Your task to perform on an android device: What's on my calendar tomorrow? Image 0: 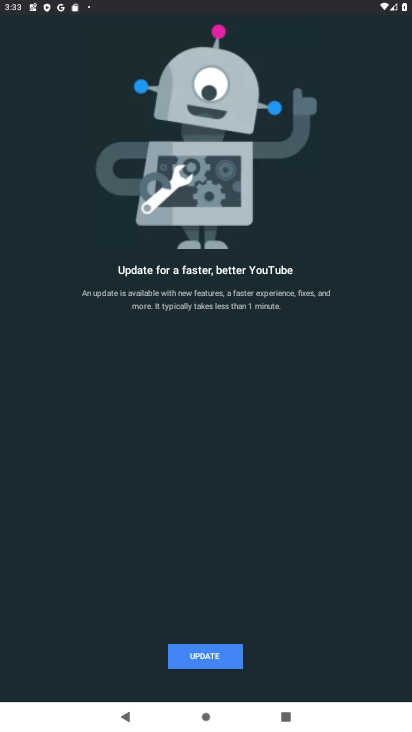
Step 0: press home button
Your task to perform on an android device: What's on my calendar tomorrow? Image 1: 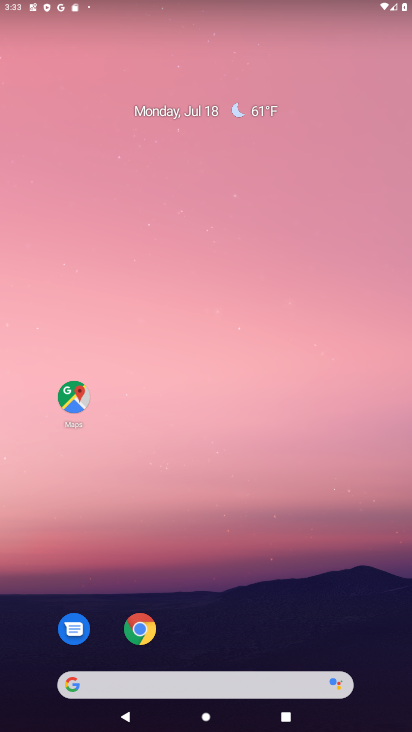
Step 1: drag from (173, 563) to (203, 293)
Your task to perform on an android device: What's on my calendar tomorrow? Image 2: 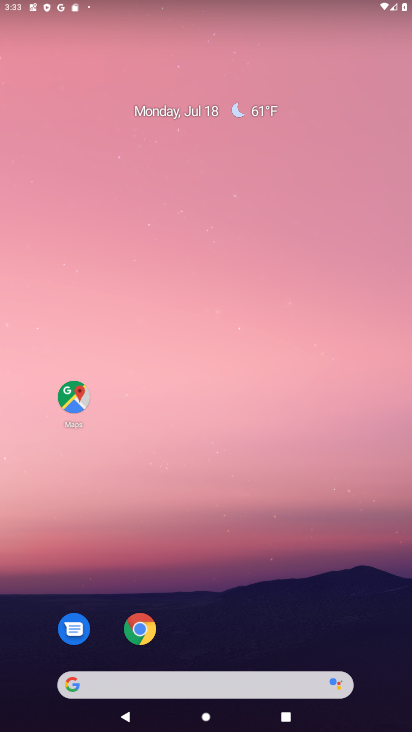
Step 2: drag from (293, 666) to (291, 196)
Your task to perform on an android device: What's on my calendar tomorrow? Image 3: 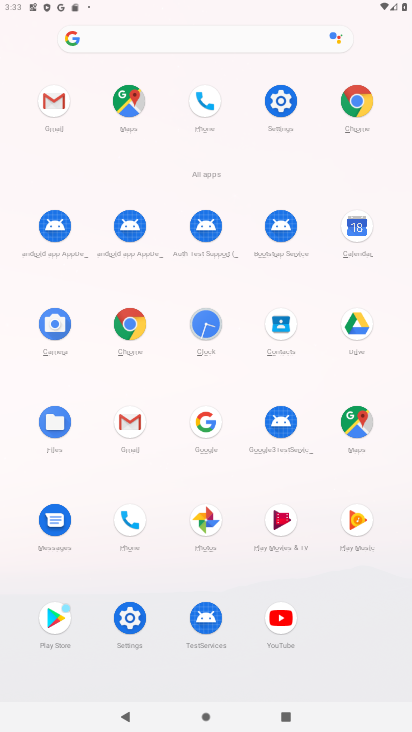
Step 3: click (361, 226)
Your task to perform on an android device: What's on my calendar tomorrow? Image 4: 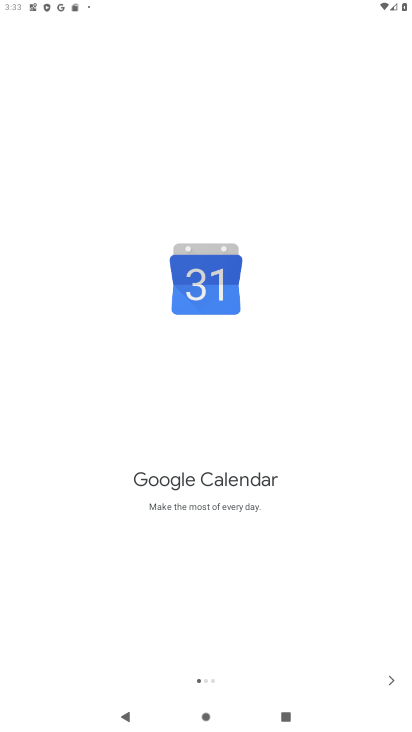
Step 4: click (381, 684)
Your task to perform on an android device: What's on my calendar tomorrow? Image 5: 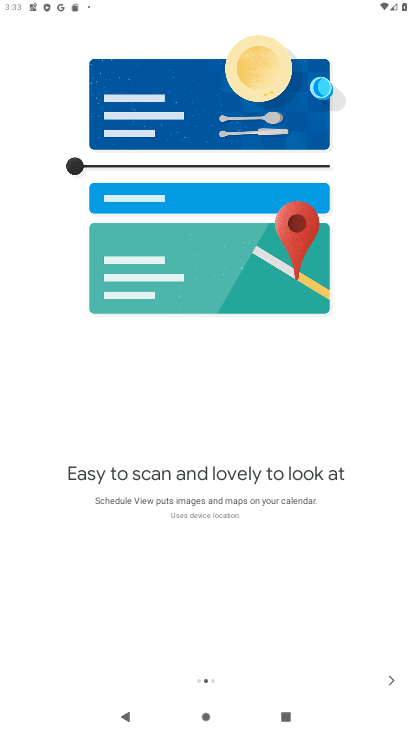
Step 5: click (381, 684)
Your task to perform on an android device: What's on my calendar tomorrow? Image 6: 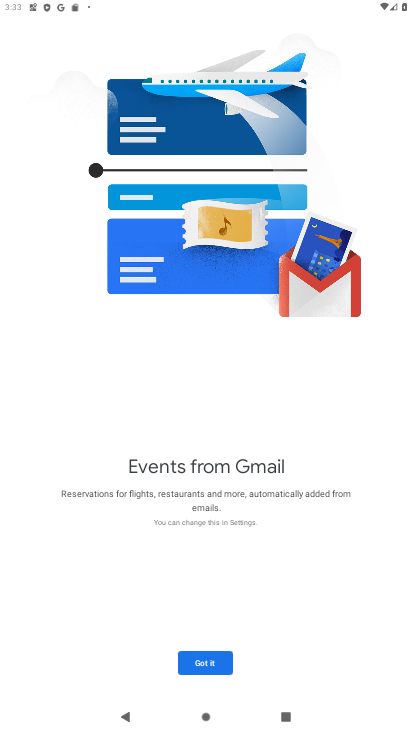
Step 6: click (381, 684)
Your task to perform on an android device: What's on my calendar tomorrow? Image 7: 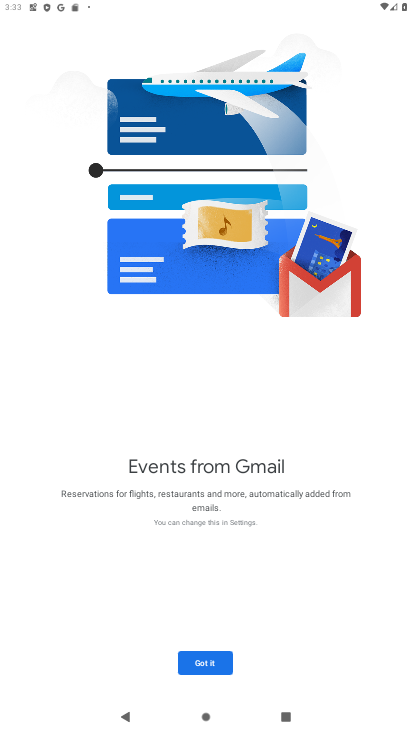
Step 7: click (209, 660)
Your task to perform on an android device: What's on my calendar tomorrow? Image 8: 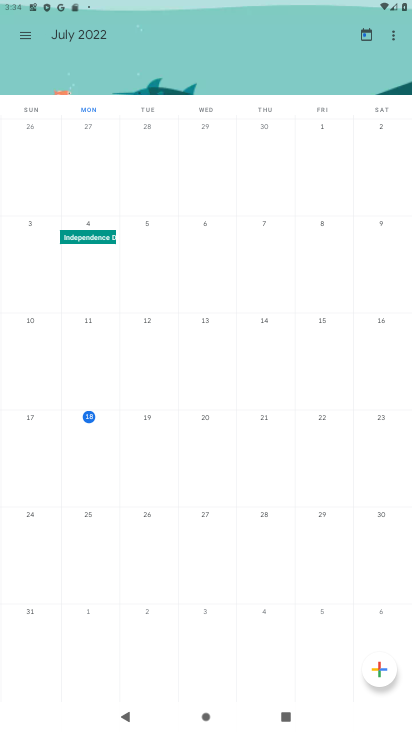
Step 8: click (144, 414)
Your task to perform on an android device: What's on my calendar tomorrow? Image 9: 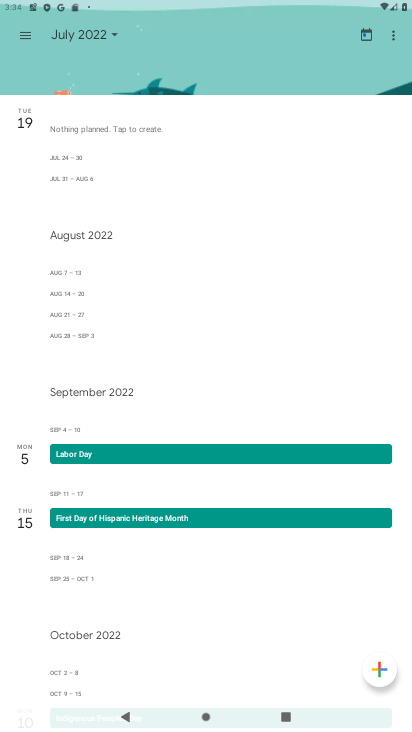
Step 9: task complete